Your task to perform on an android device: toggle data saver in the chrome app Image 0: 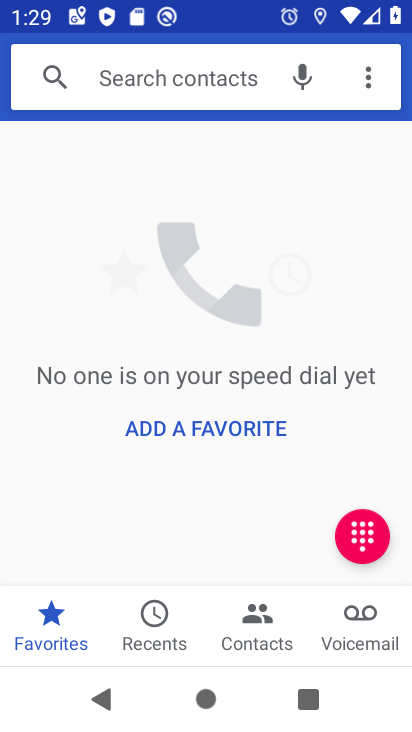
Step 0: press home button
Your task to perform on an android device: toggle data saver in the chrome app Image 1: 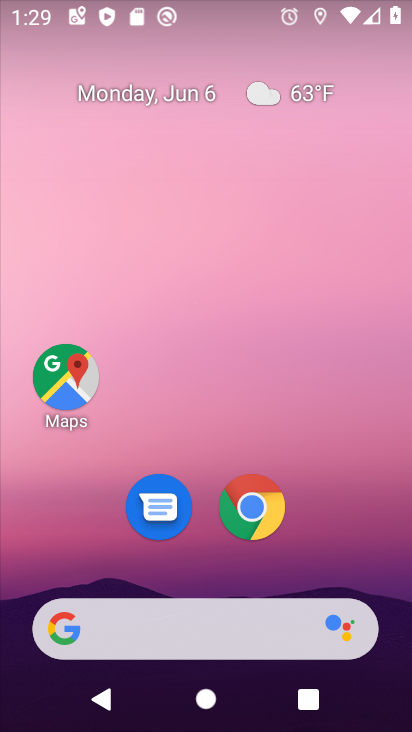
Step 1: click (252, 510)
Your task to perform on an android device: toggle data saver in the chrome app Image 2: 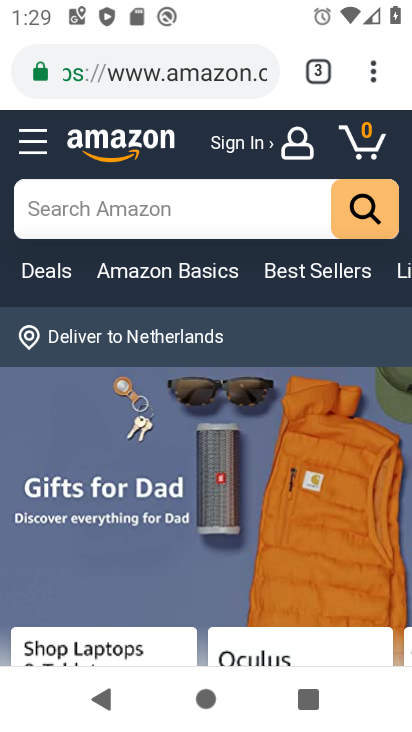
Step 2: click (373, 80)
Your task to perform on an android device: toggle data saver in the chrome app Image 3: 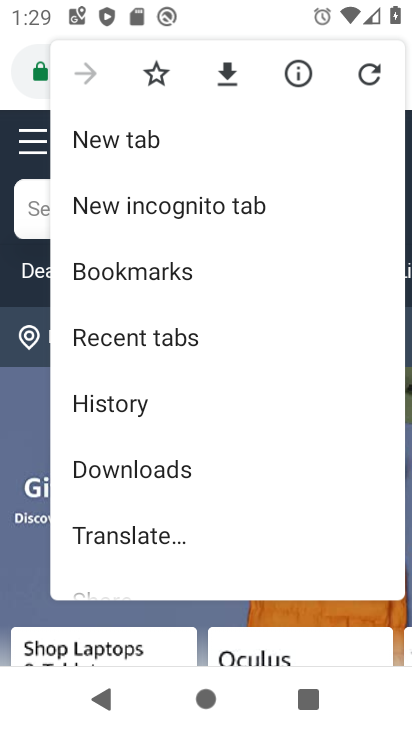
Step 3: drag from (261, 483) to (275, 152)
Your task to perform on an android device: toggle data saver in the chrome app Image 4: 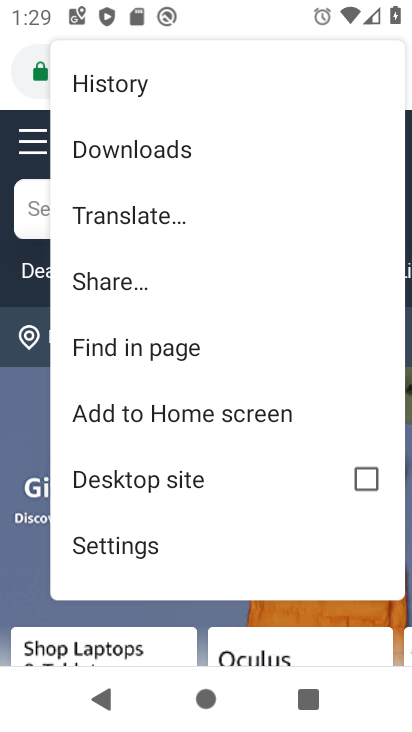
Step 4: click (209, 546)
Your task to perform on an android device: toggle data saver in the chrome app Image 5: 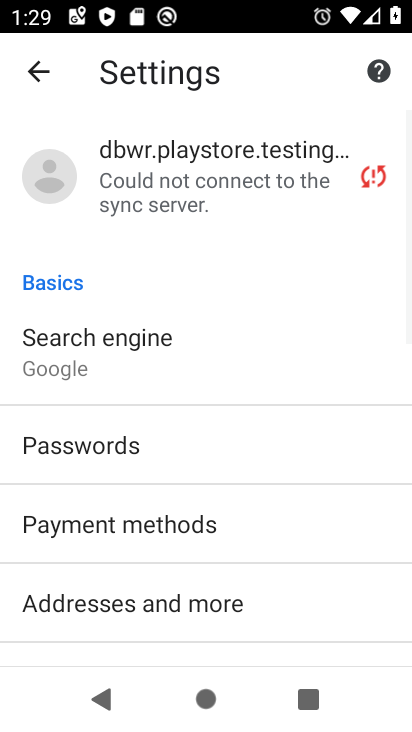
Step 5: drag from (232, 544) to (230, 113)
Your task to perform on an android device: toggle data saver in the chrome app Image 6: 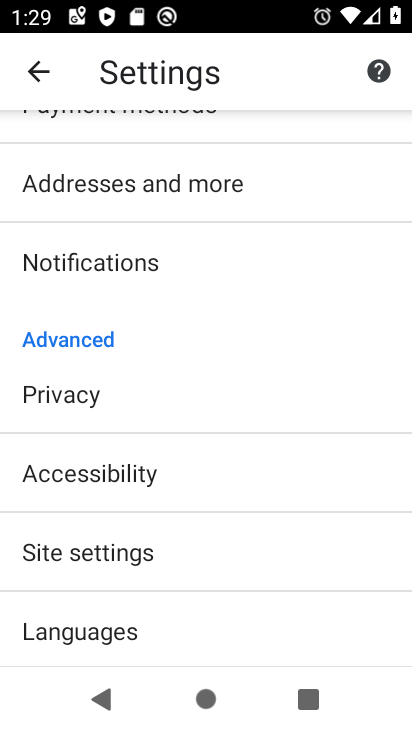
Step 6: drag from (222, 546) to (205, 263)
Your task to perform on an android device: toggle data saver in the chrome app Image 7: 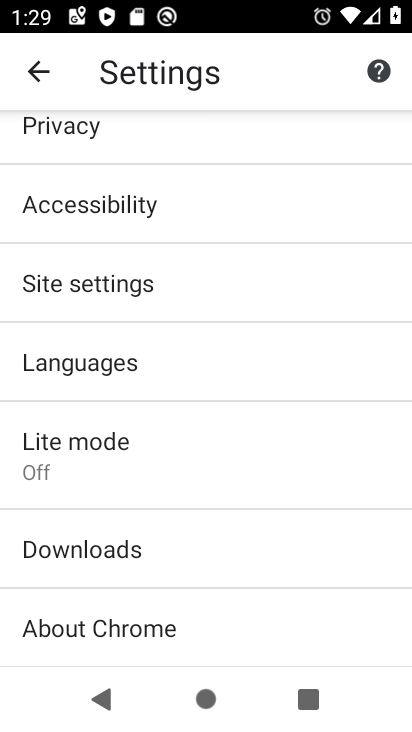
Step 7: click (177, 473)
Your task to perform on an android device: toggle data saver in the chrome app Image 8: 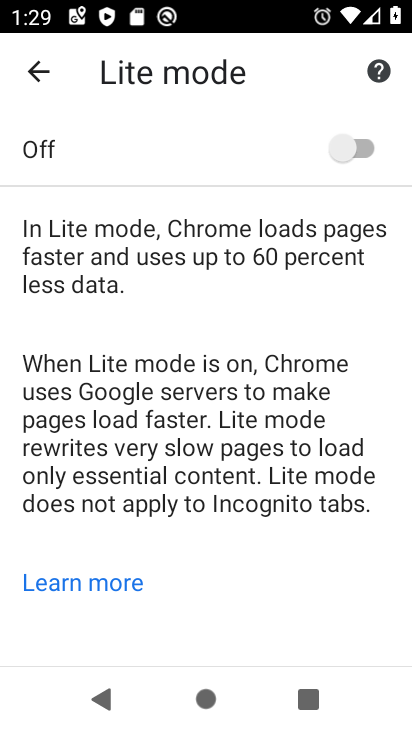
Step 8: click (350, 149)
Your task to perform on an android device: toggle data saver in the chrome app Image 9: 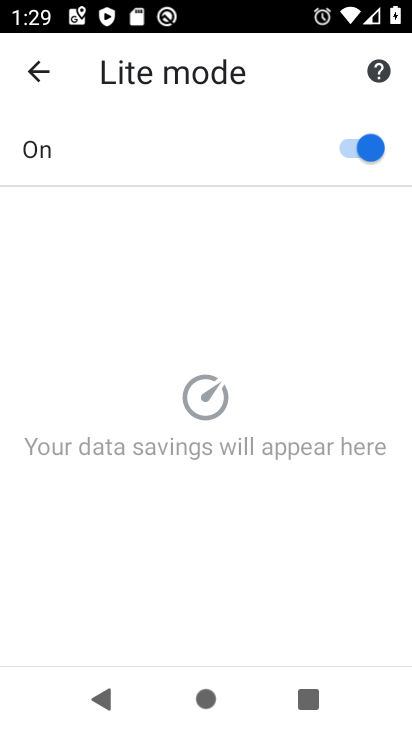
Step 9: task complete